Your task to perform on an android device: turn pop-ups on in chrome Image 0: 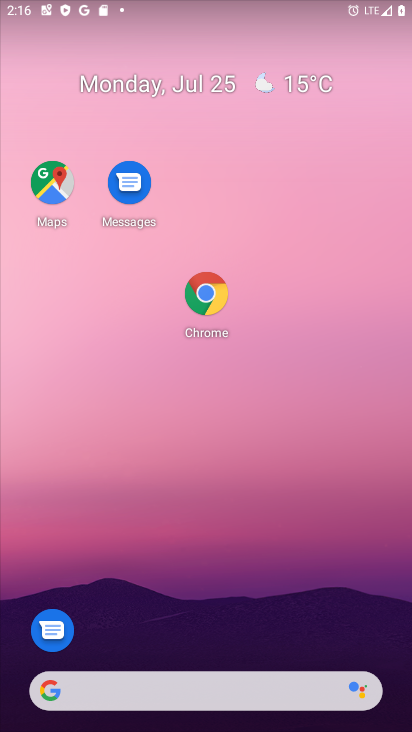
Step 0: press home button
Your task to perform on an android device: turn pop-ups on in chrome Image 1: 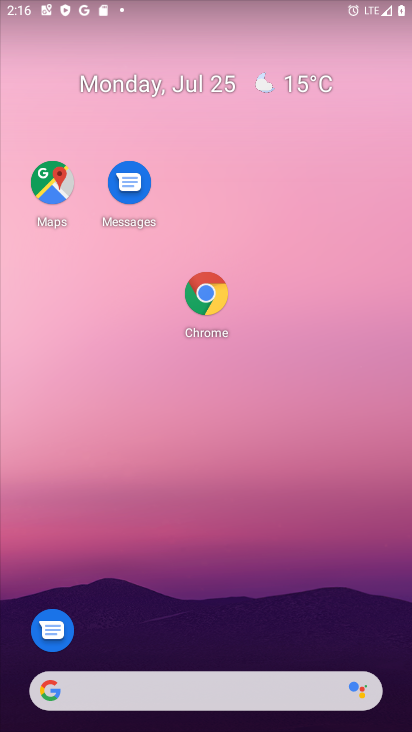
Step 1: press home button
Your task to perform on an android device: turn pop-ups on in chrome Image 2: 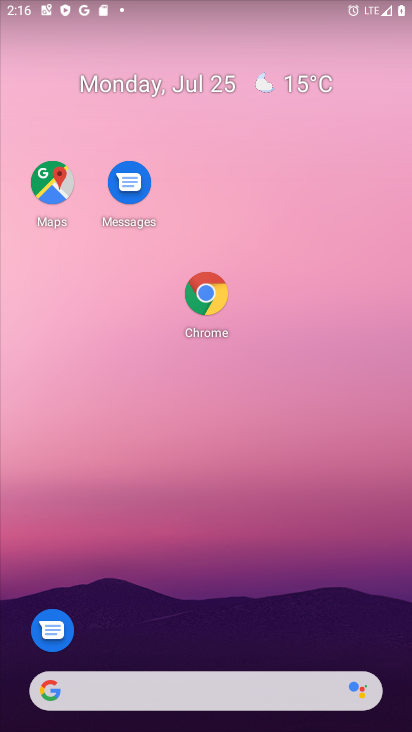
Step 2: click (211, 295)
Your task to perform on an android device: turn pop-ups on in chrome Image 3: 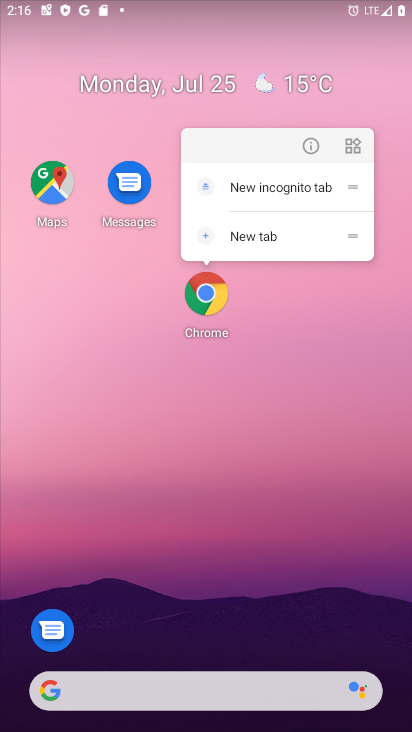
Step 3: click (211, 295)
Your task to perform on an android device: turn pop-ups on in chrome Image 4: 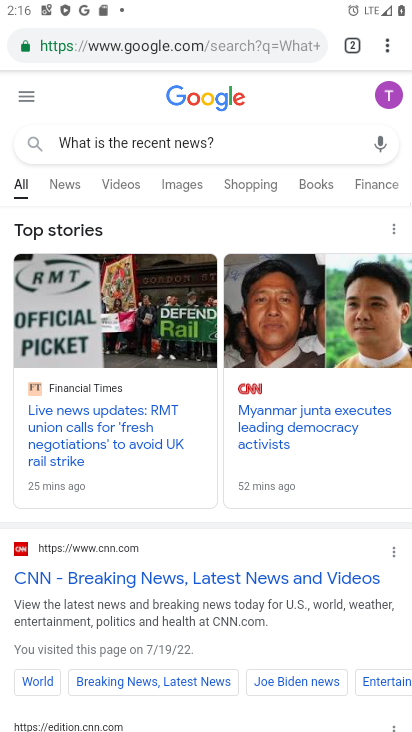
Step 4: drag from (390, 47) to (247, 552)
Your task to perform on an android device: turn pop-ups on in chrome Image 5: 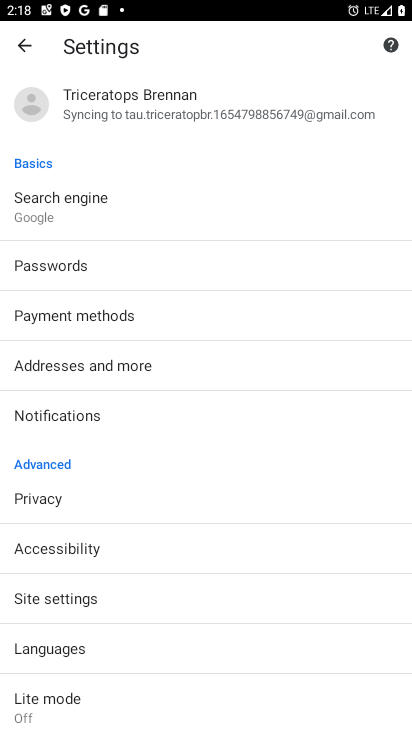
Step 5: click (108, 593)
Your task to perform on an android device: turn pop-ups on in chrome Image 6: 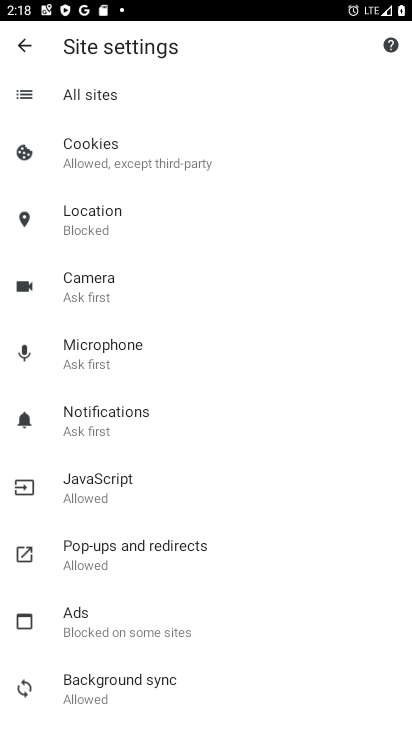
Step 6: click (126, 539)
Your task to perform on an android device: turn pop-ups on in chrome Image 7: 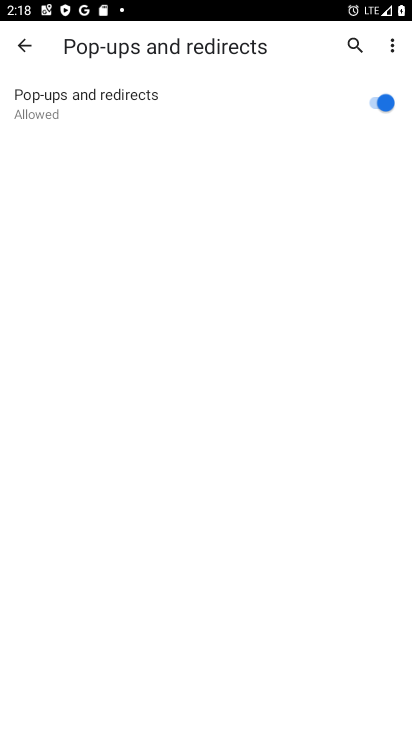
Step 7: task complete